Your task to perform on an android device: Open Google Chrome and click the shortcut for Amazon.com Image 0: 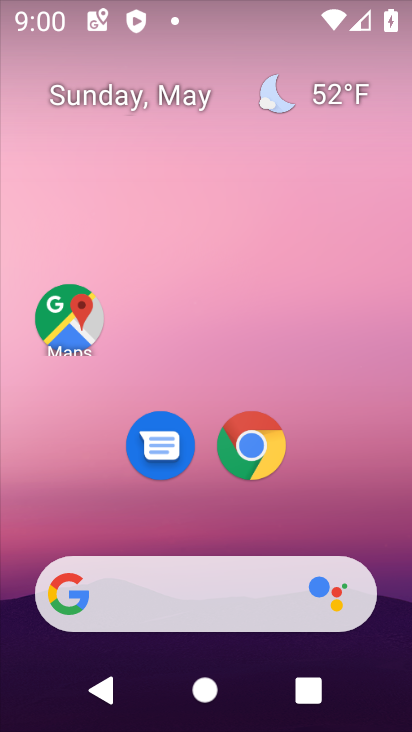
Step 0: click (251, 447)
Your task to perform on an android device: Open Google Chrome and click the shortcut for Amazon.com Image 1: 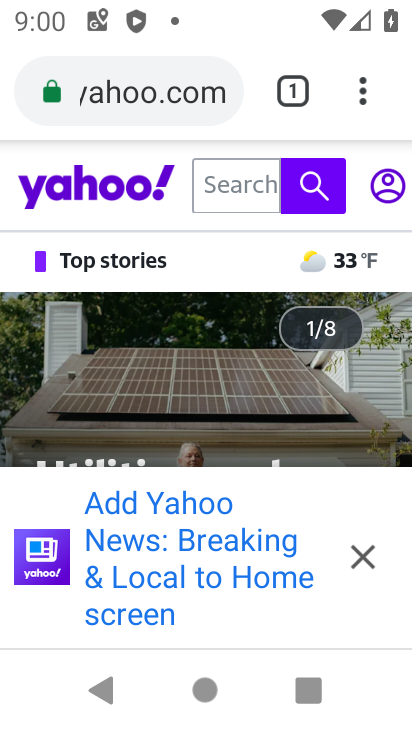
Step 1: click (361, 93)
Your task to perform on an android device: Open Google Chrome and click the shortcut for Amazon.com Image 2: 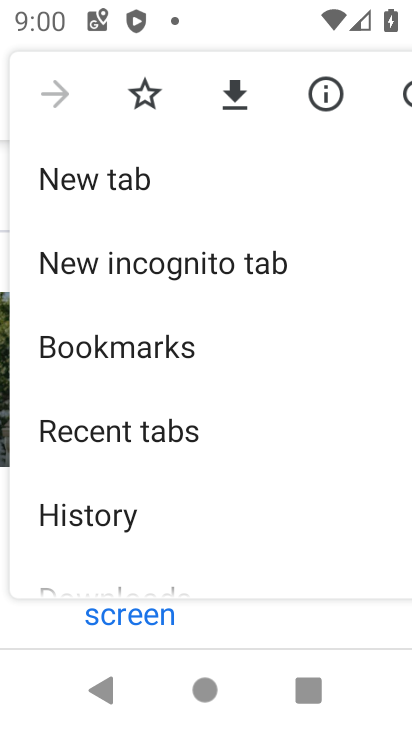
Step 2: click (129, 175)
Your task to perform on an android device: Open Google Chrome and click the shortcut for Amazon.com Image 3: 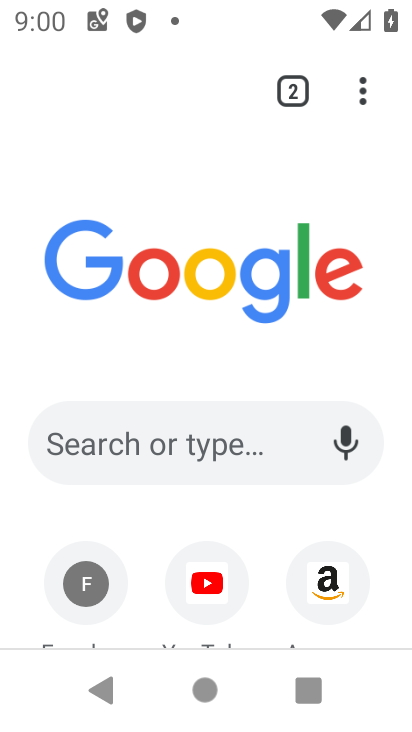
Step 3: click (321, 585)
Your task to perform on an android device: Open Google Chrome and click the shortcut for Amazon.com Image 4: 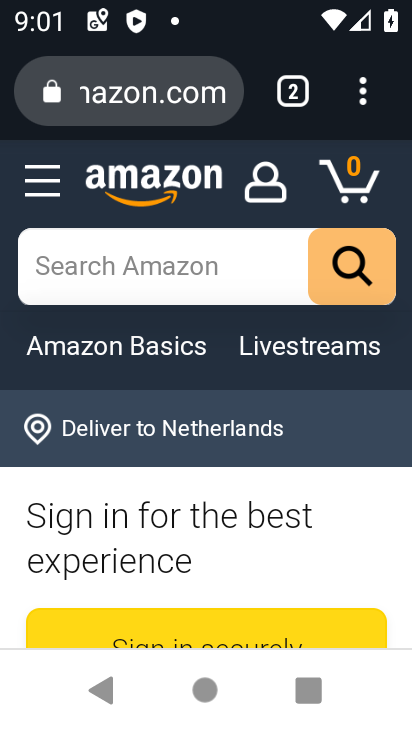
Step 4: task complete